Your task to perform on an android device: Search for pizza restaurants on Maps Image 0: 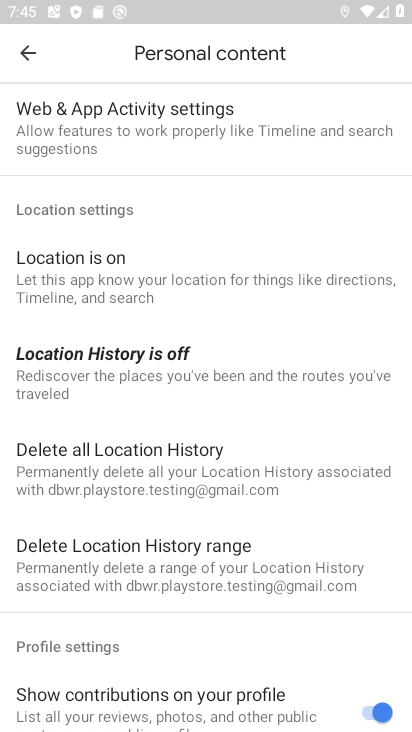
Step 0: press home button
Your task to perform on an android device: Search for pizza restaurants on Maps Image 1: 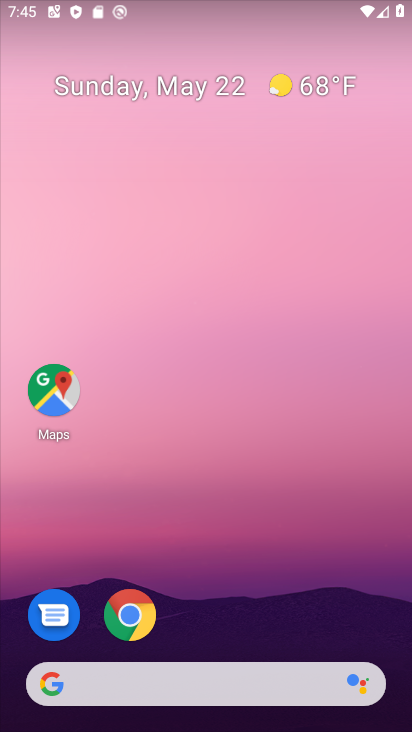
Step 1: click (76, 391)
Your task to perform on an android device: Search for pizza restaurants on Maps Image 2: 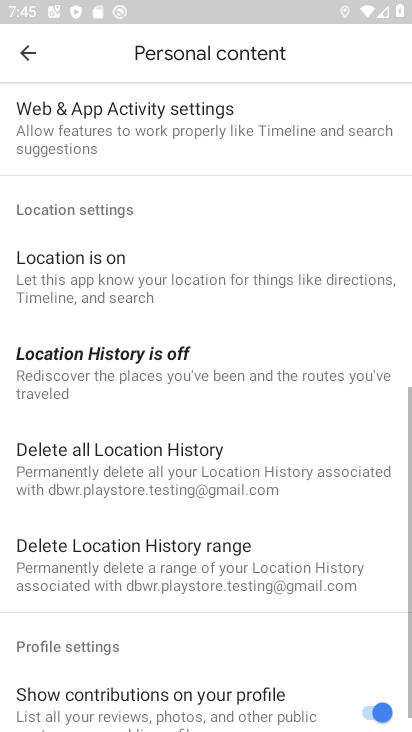
Step 2: click (28, 43)
Your task to perform on an android device: Search for pizza restaurants on Maps Image 3: 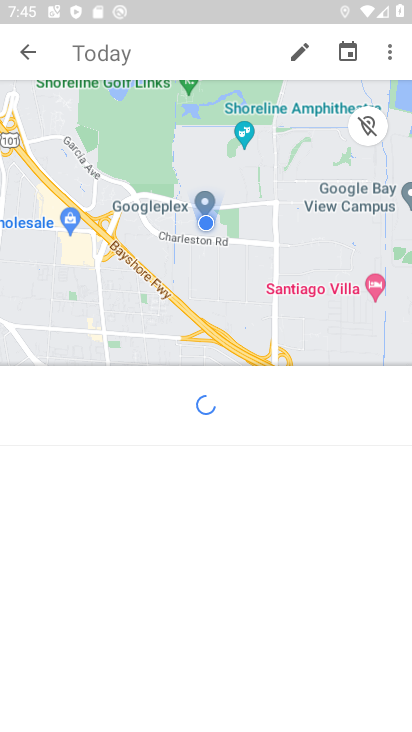
Step 3: click (28, 43)
Your task to perform on an android device: Search for pizza restaurants on Maps Image 4: 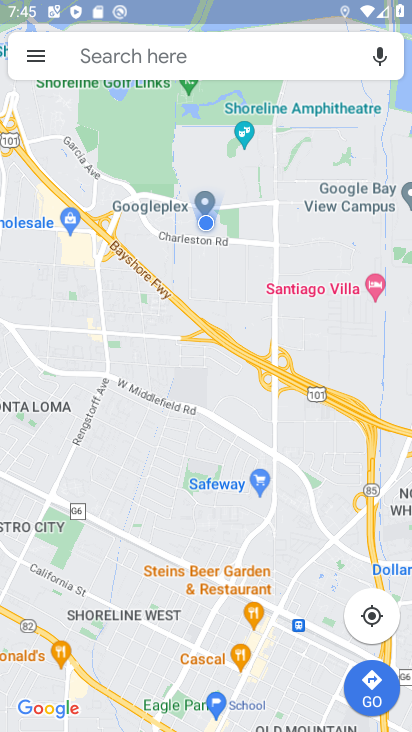
Step 4: click (189, 57)
Your task to perform on an android device: Search for pizza restaurants on Maps Image 5: 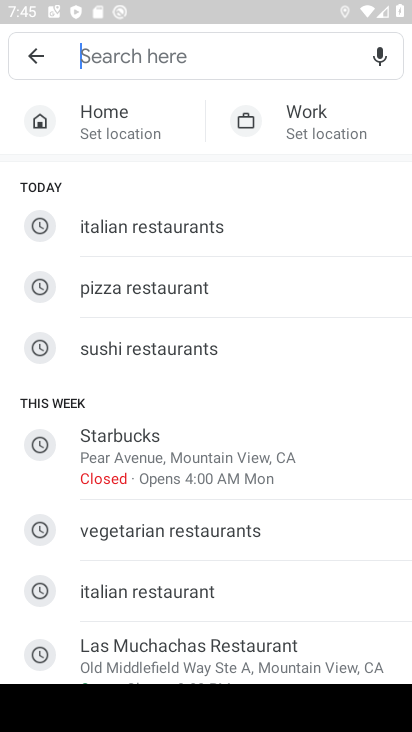
Step 5: click (132, 283)
Your task to perform on an android device: Search for pizza restaurants on Maps Image 6: 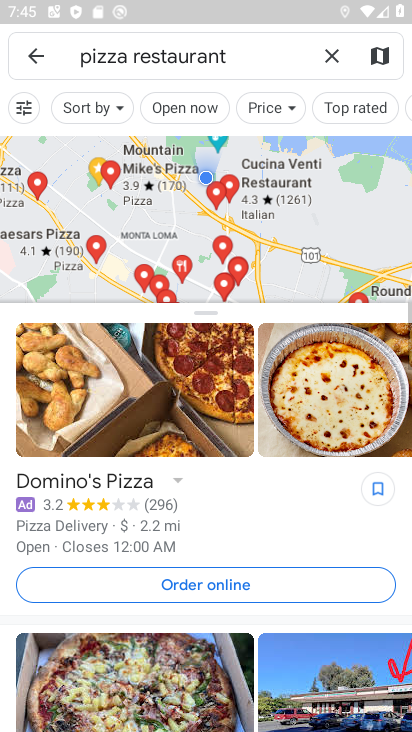
Step 6: task complete